Your task to perform on an android device: make emails show in primary in the gmail app Image 0: 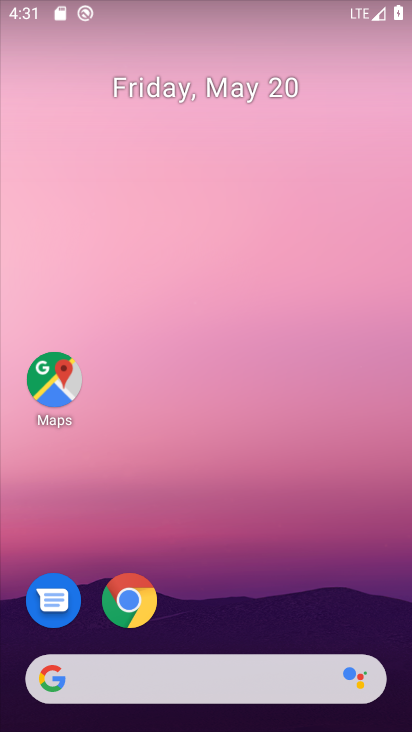
Step 0: drag from (261, 468) to (163, 45)
Your task to perform on an android device: make emails show in primary in the gmail app Image 1: 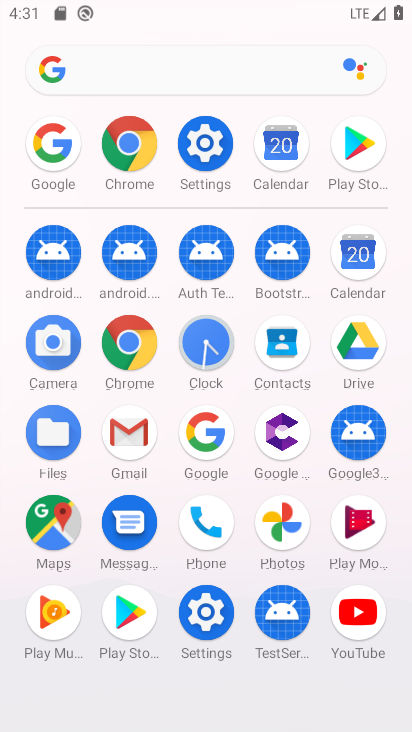
Step 1: click (143, 432)
Your task to perform on an android device: make emails show in primary in the gmail app Image 2: 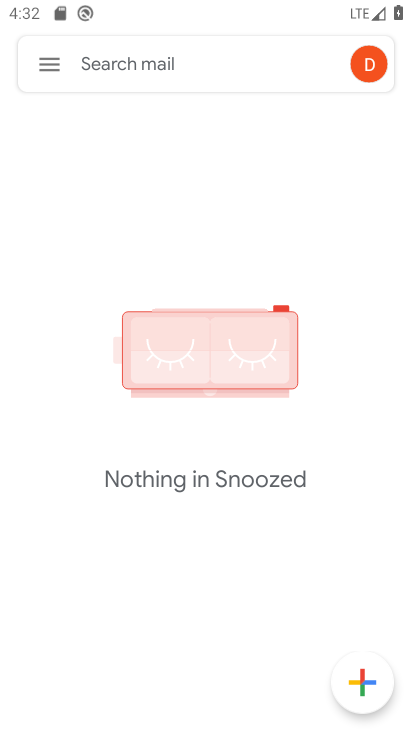
Step 2: click (40, 64)
Your task to perform on an android device: make emails show in primary in the gmail app Image 3: 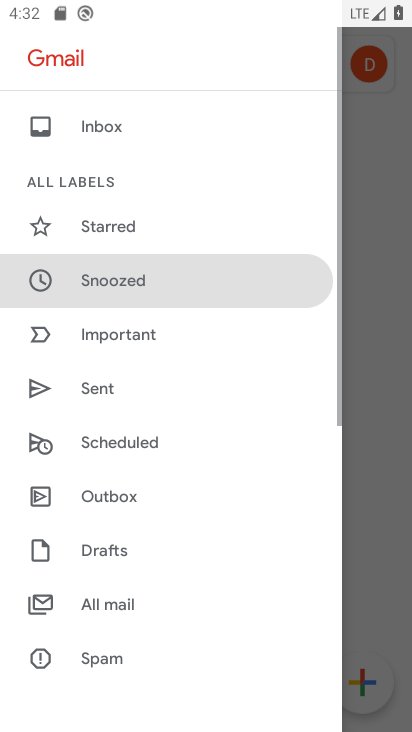
Step 3: task complete